Your task to perform on an android device: open app "DuckDuckGo Privacy Browser" Image 0: 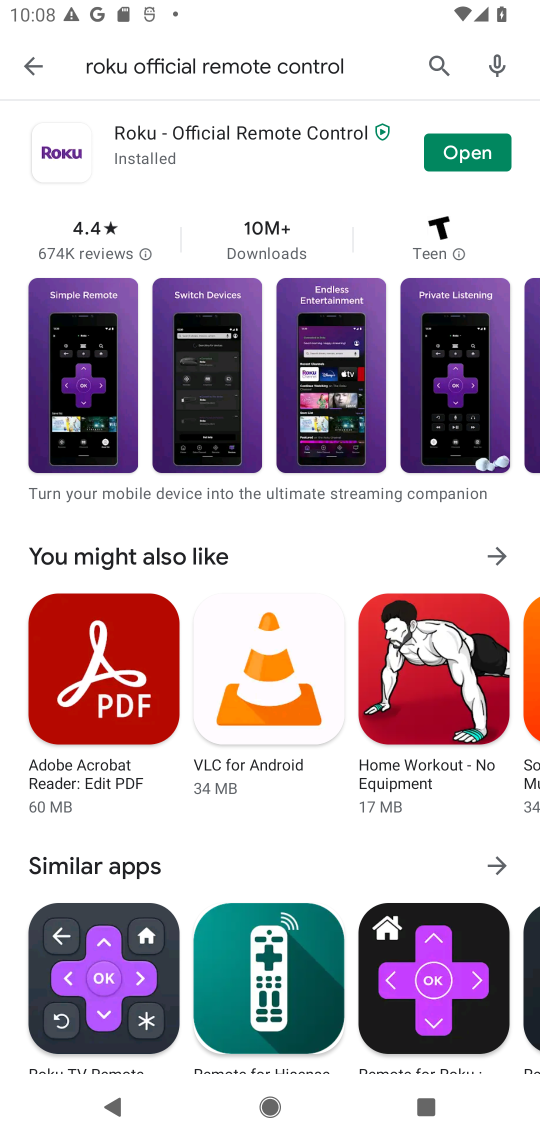
Step 0: press home button
Your task to perform on an android device: open app "DuckDuckGo Privacy Browser" Image 1: 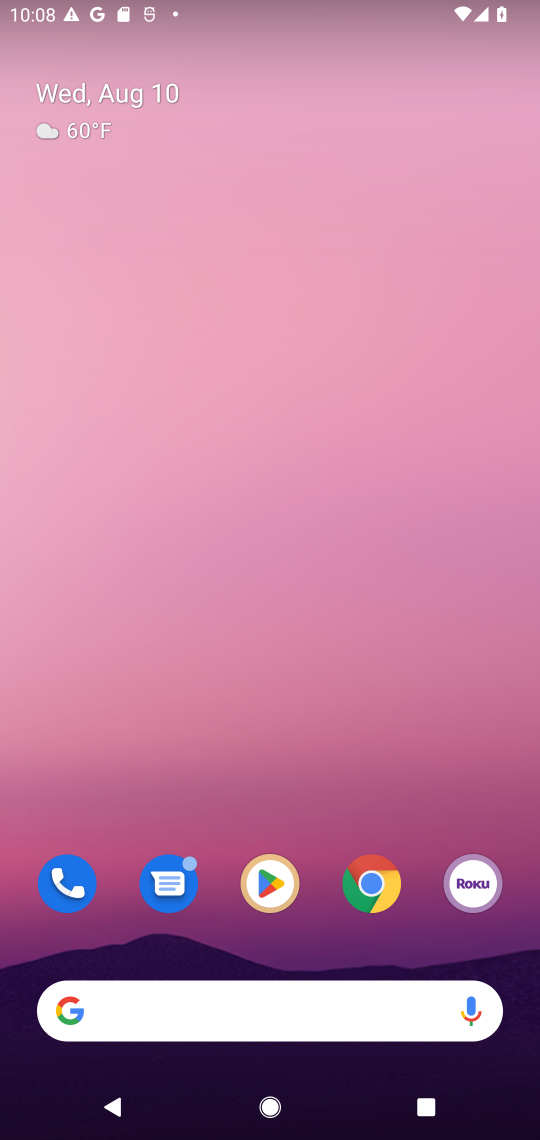
Step 1: drag from (370, 725) to (378, 41)
Your task to perform on an android device: open app "DuckDuckGo Privacy Browser" Image 2: 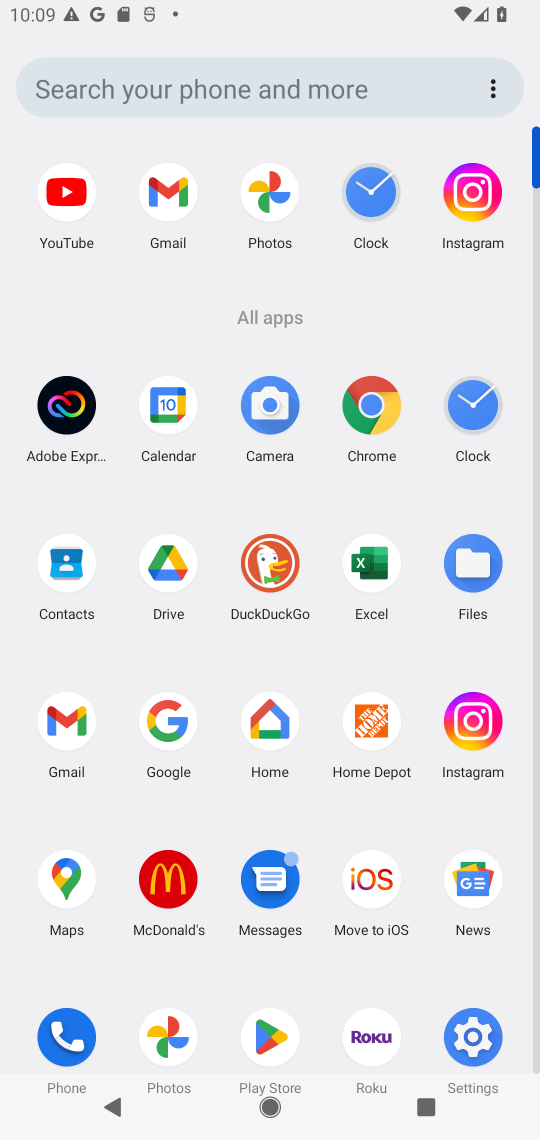
Step 2: click (258, 1031)
Your task to perform on an android device: open app "DuckDuckGo Privacy Browser" Image 3: 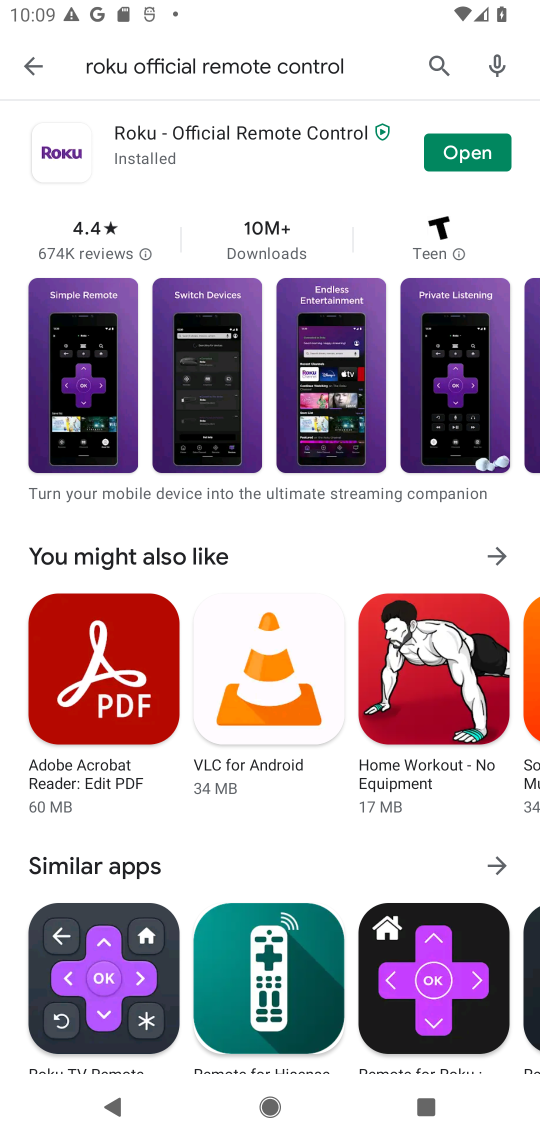
Step 3: click (440, 58)
Your task to perform on an android device: open app "DuckDuckGo Privacy Browser" Image 4: 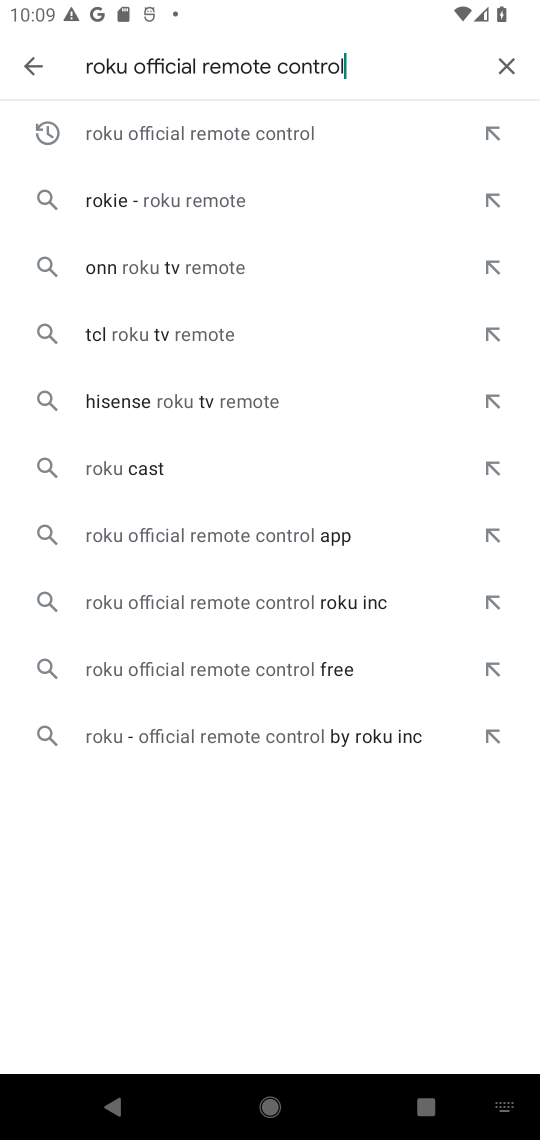
Step 4: click (507, 60)
Your task to perform on an android device: open app "DuckDuckGo Privacy Browser" Image 5: 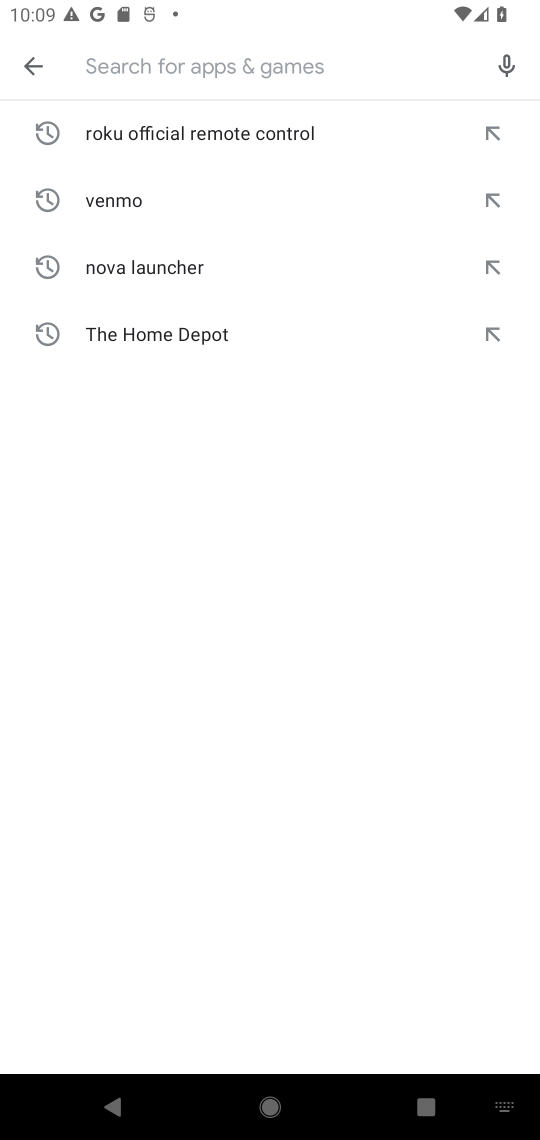
Step 5: type "DuckDuckGo Privacy Browser"
Your task to perform on an android device: open app "DuckDuckGo Privacy Browser" Image 6: 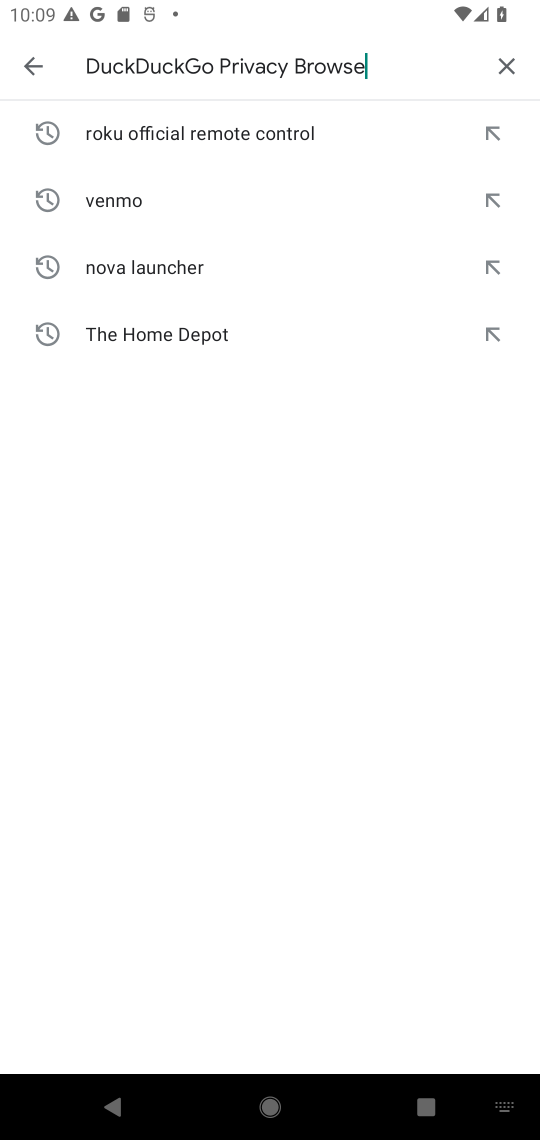
Step 6: press enter
Your task to perform on an android device: open app "DuckDuckGo Privacy Browser" Image 7: 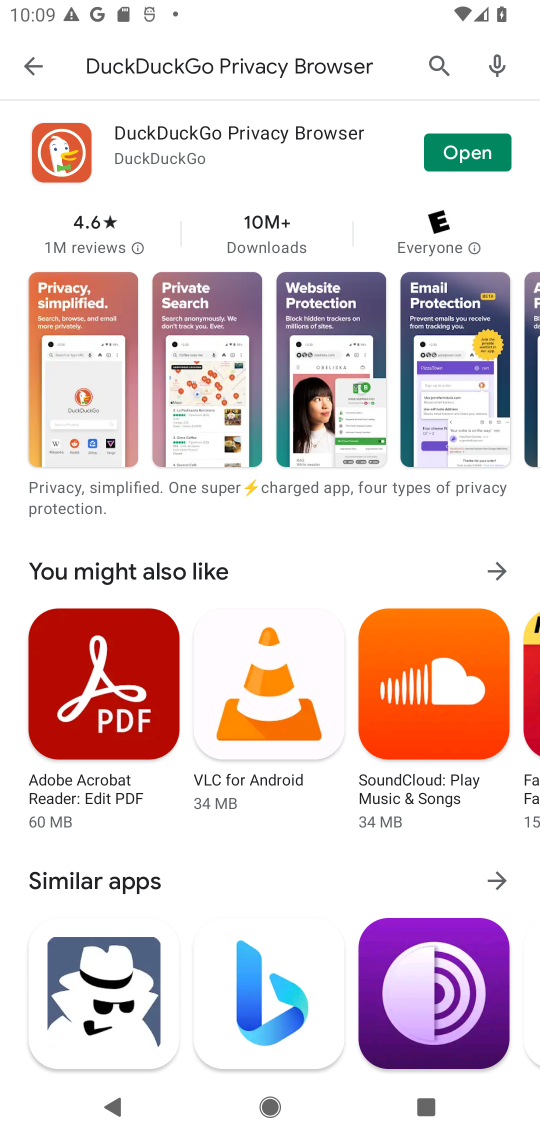
Step 7: click (473, 148)
Your task to perform on an android device: open app "DuckDuckGo Privacy Browser" Image 8: 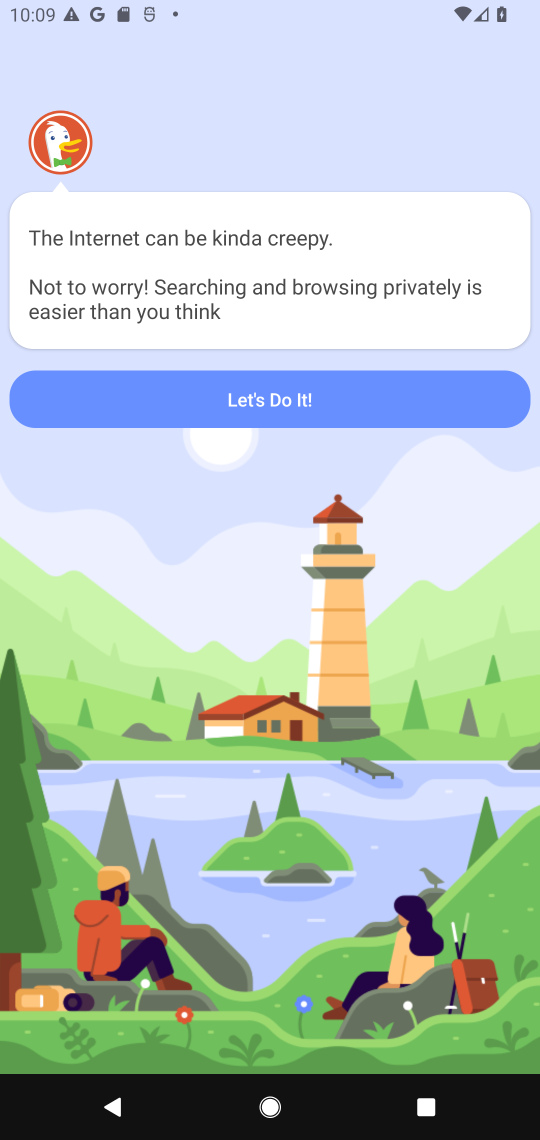
Step 8: task complete